Your task to perform on an android device: open app "Google Chat" Image 0: 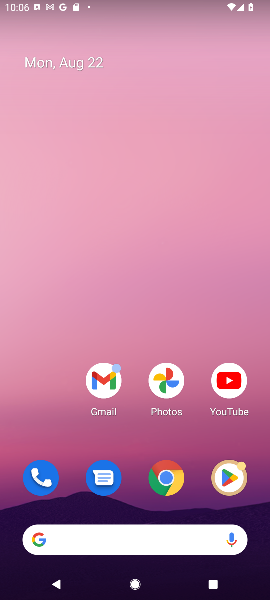
Step 0: click (162, 492)
Your task to perform on an android device: open app "Google Chat" Image 1: 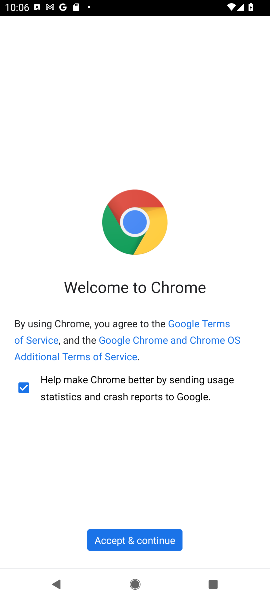
Step 1: press home button
Your task to perform on an android device: open app "Google Chat" Image 2: 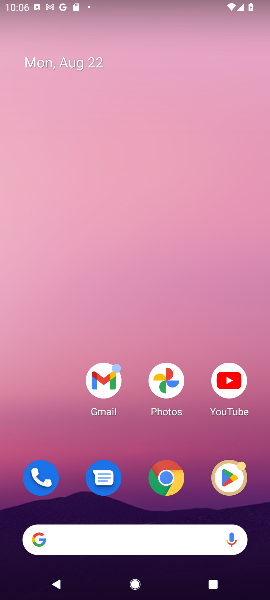
Step 2: click (220, 489)
Your task to perform on an android device: open app "Google Chat" Image 3: 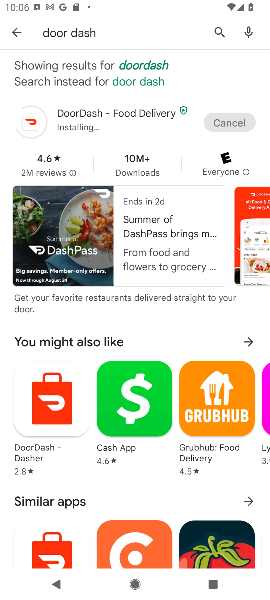
Step 3: click (221, 36)
Your task to perform on an android device: open app "Google Chat" Image 4: 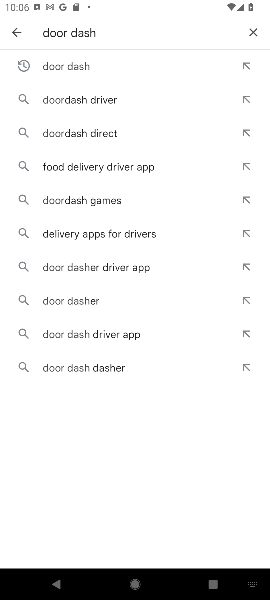
Step 4: click (245, 23)
Your task to perform on an android device: open app "Google Chat" Image 5: 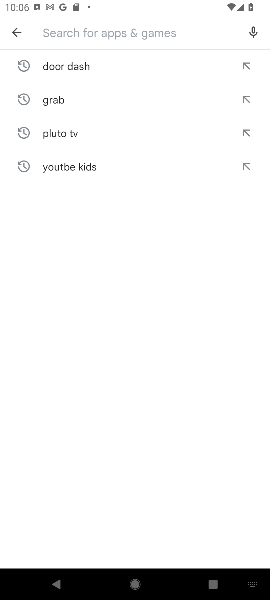
Step 5: type "google chat"
Your task to perform on an android device: open app "Google Chat" Image 6: 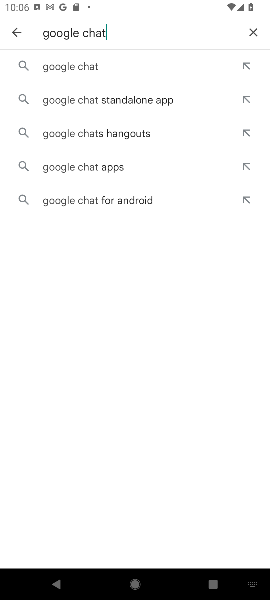
Step 6: click (122, 74)
Your task to perform on an android device: open app "Google Chat" Image 7: 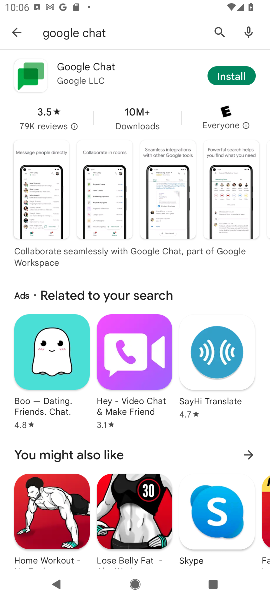
Step 7: click (224, 76)
Your task to perform on an android device: open app "Google Chat" Image 8: 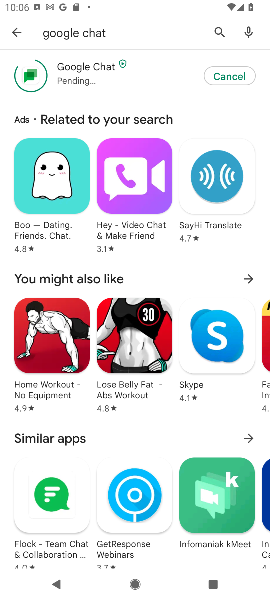
Step 8: task complete